Your task to perform on an android device: Open notification settings Image 0: 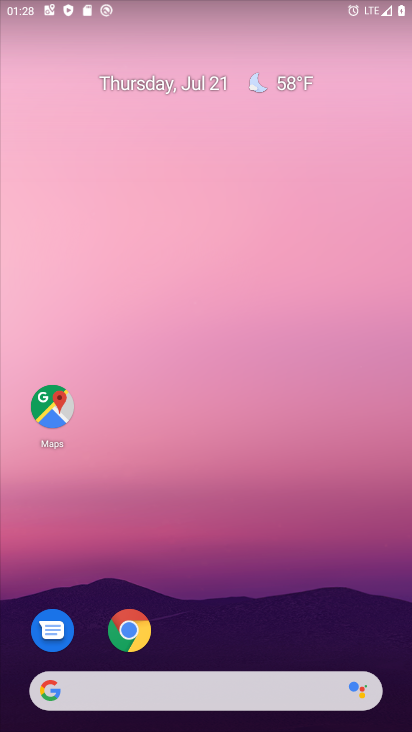
Step 0: drag from (199, 652) to (170, 66)
Your task to perform on an android device: Open notification settings Image 1: 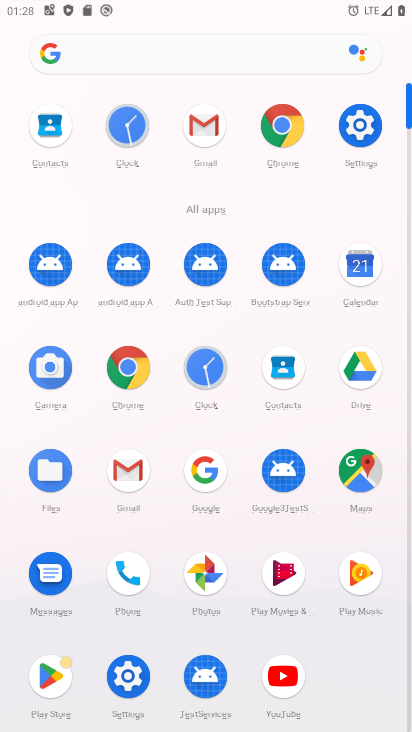
Step 1: click (365, 175)
Your task to perform on an android device: Open notification settings Image 2: 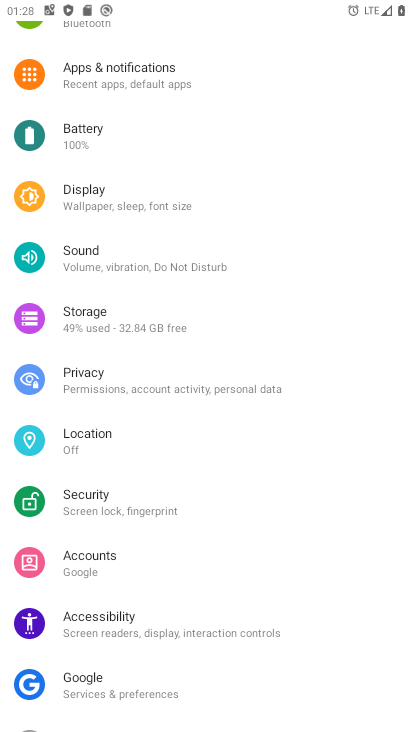
Step 2: click (130, 81)
Your task to perform on an android device: Open notification settings Image 3: 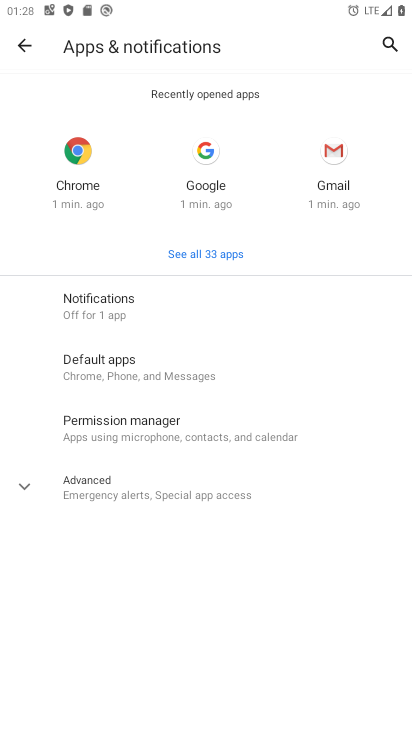
Step 3: task complete